Your task to perform on an android device: open a bookmark in the chrome app Image 0: 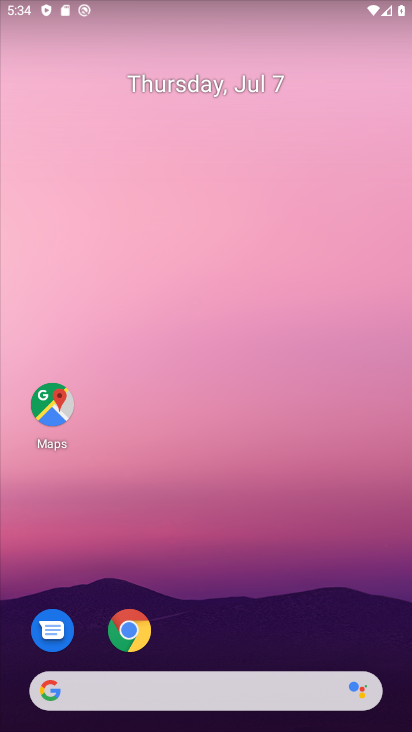
Step 0: drag from (188, 537) to (257, 51)
Your task to perform on an android device: open a bookmark in the chrome app Image 1: 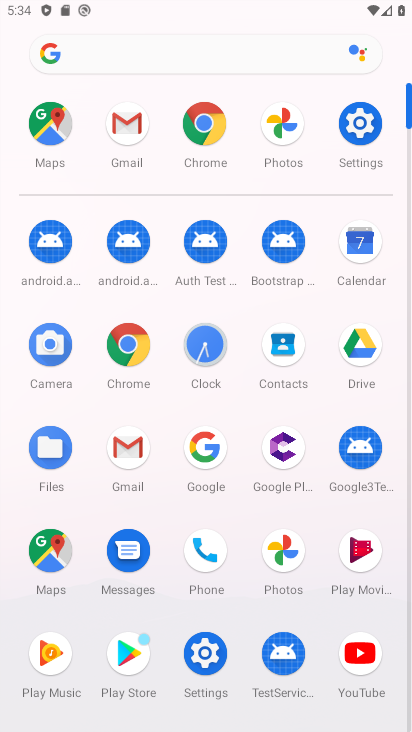
Step 1: click (209, 133)
Your task to perform on an android device: open a bookmark in the chrome app Image 2: 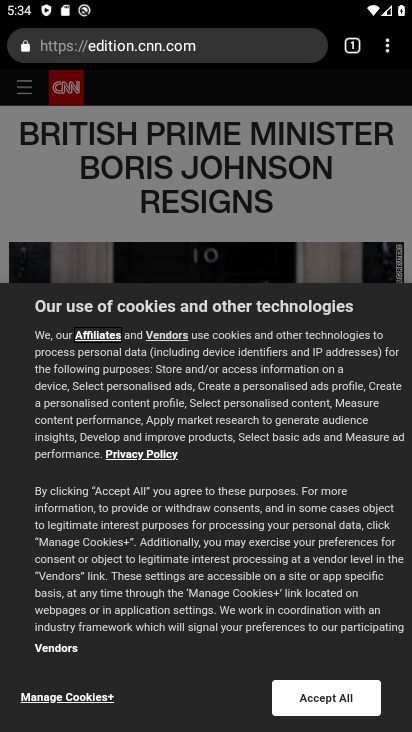
Step 2: click (384, 49)
Your task to perform on an android device: open a bookmark in the chrome app Image 3: 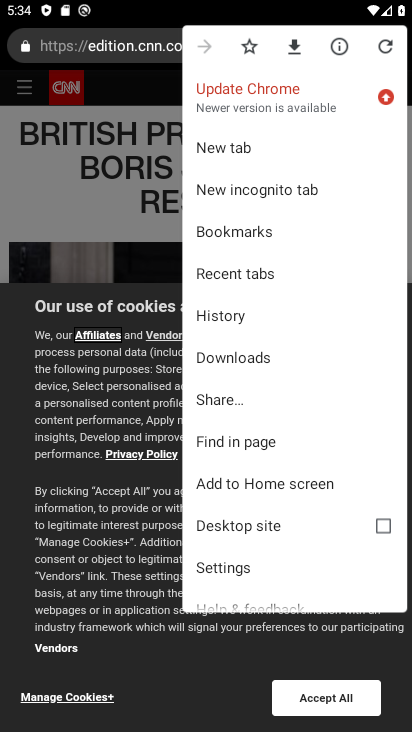
Step 3: click (245, 232)
Your task to perform on an android device: open a bookmark in the chrome app Image 4: 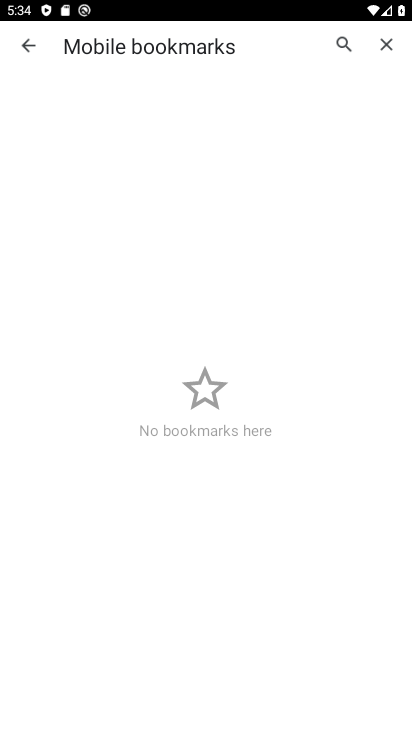
Step 4: task complete